Your task to perform on an android device: toggle javascript in the chrome app Image 0: 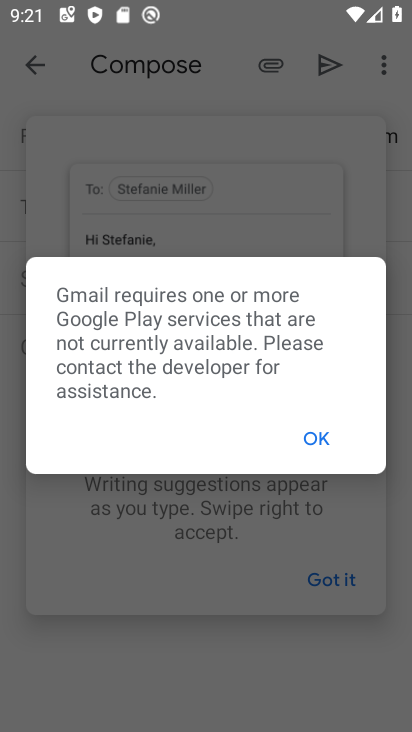
Step 0: press home button
Your task to perform on an android device: toggle javascript in the chrome app Image 1: 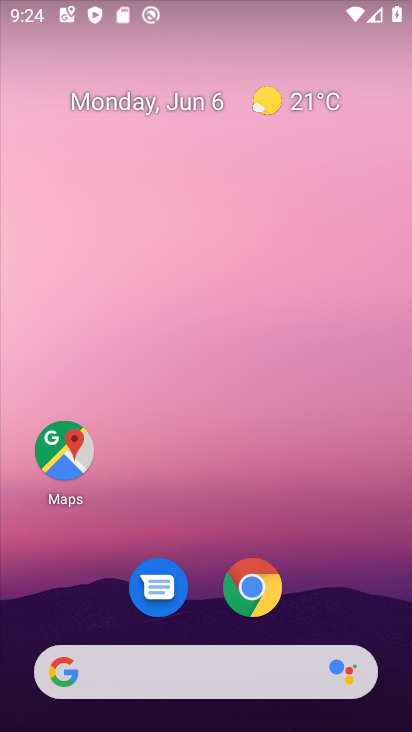
Step 1: click (271, 593)
Your task to perform on an android device: toggle javascript in the chrome app Image 2: 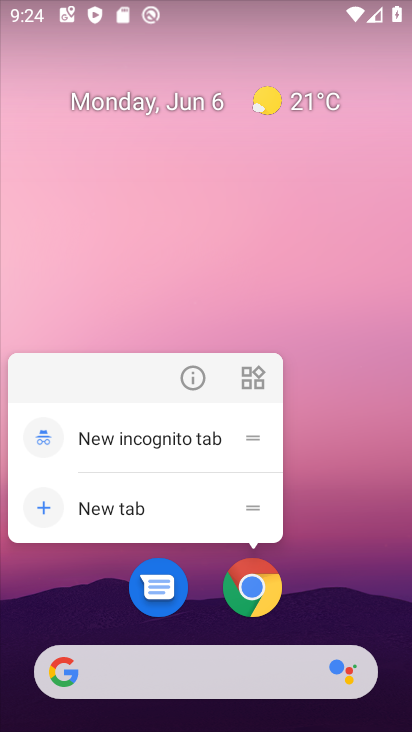
Step 2: click (252, 566)
Your task to perform on an android device: toggle javascript in the chrome app Image 3: 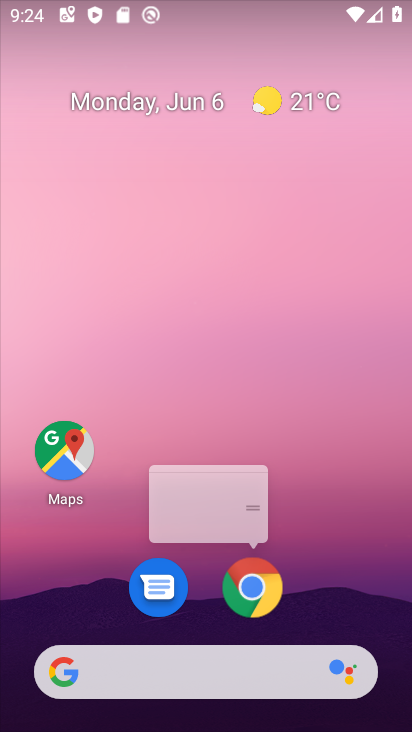
Step 3: click (252, 566)
Your task to perform on an android device: toggle javascript in the chrome app Image 4: 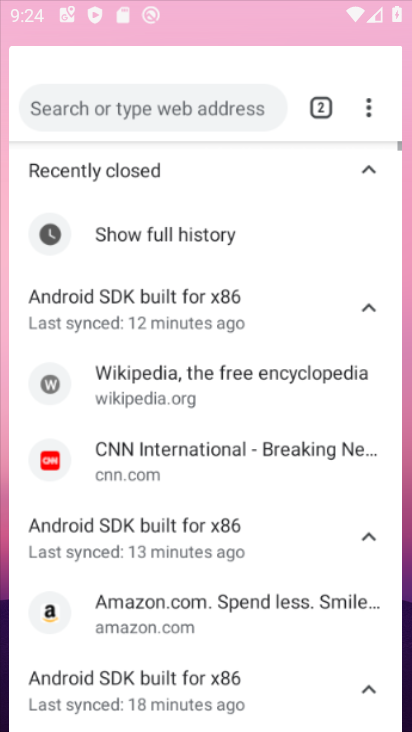
Step 4: click (252, 566)
Your task to perform on an android device: toggle javascript in the chrome app Image 5: 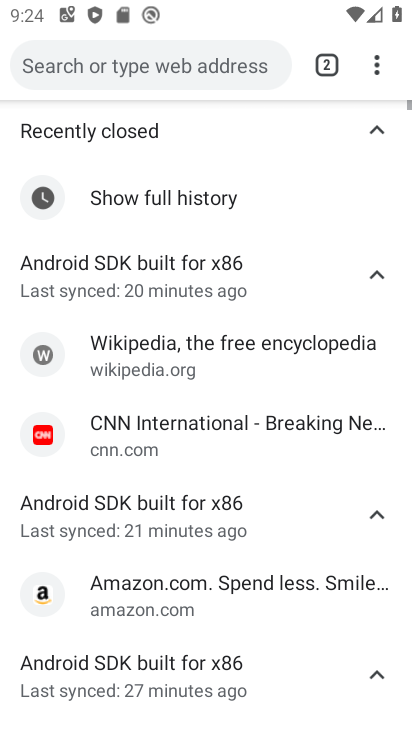
Step 5: click (373, 62)
Your task to perform on an android device: toggle javascript in the chrome app Image 6: 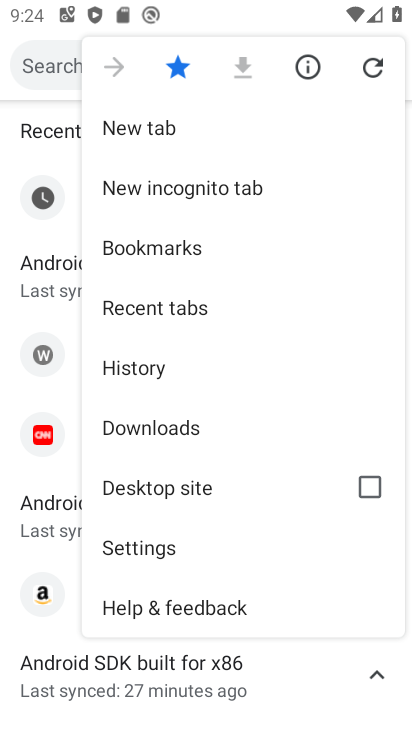
Step 6: click (146, 558)
Your task to perform on an android device: toggle javascript in the chrome app Image 7: 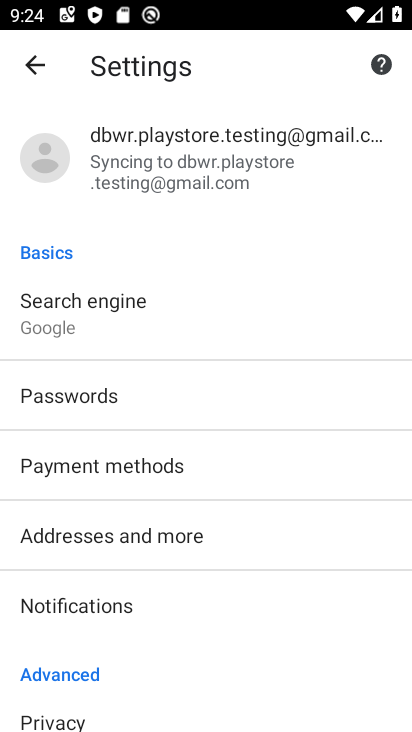
Step 7: drag from (164, 584) to (107, 179)
Your task to perform on an android device: toggle javascript in the chrome app Image 8: 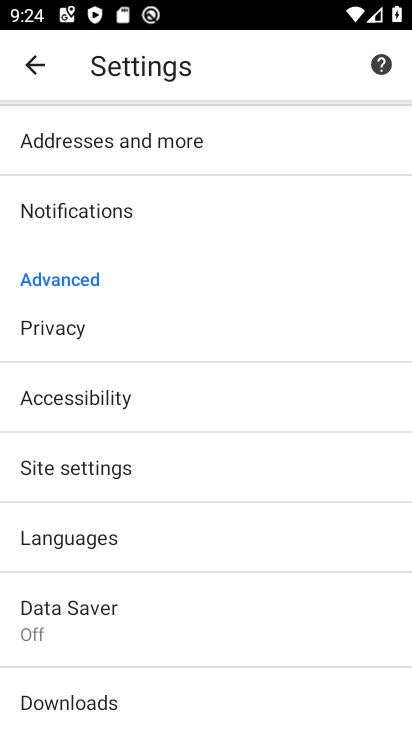
Step 8: click (137, 490)
Your task to perform on an android device: toggle javascript in the chrome app Image 9: 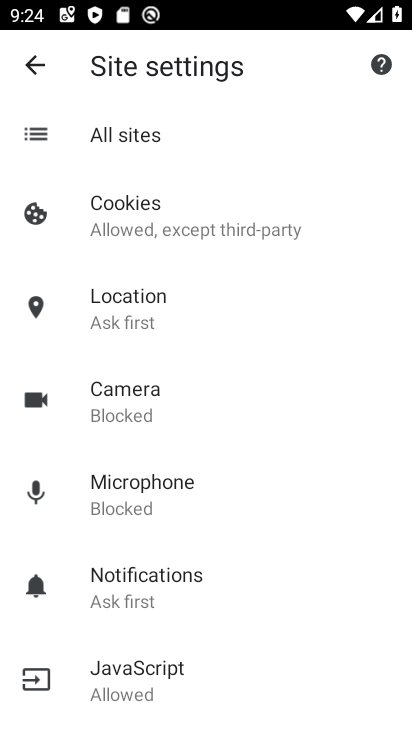
Step 9: click (167, 715)
Your task to perform on an android device: toggle javascript in the chrome app Image 10: 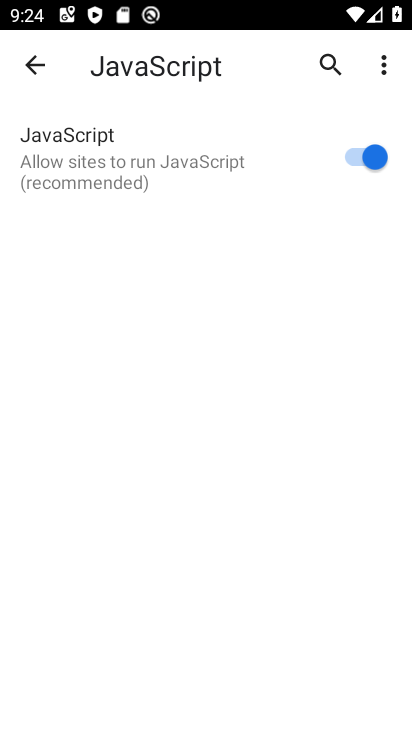
Step 10: click (360, 165)
Your task to perform on an android device: toggle javascript in the chrome app Image 11: 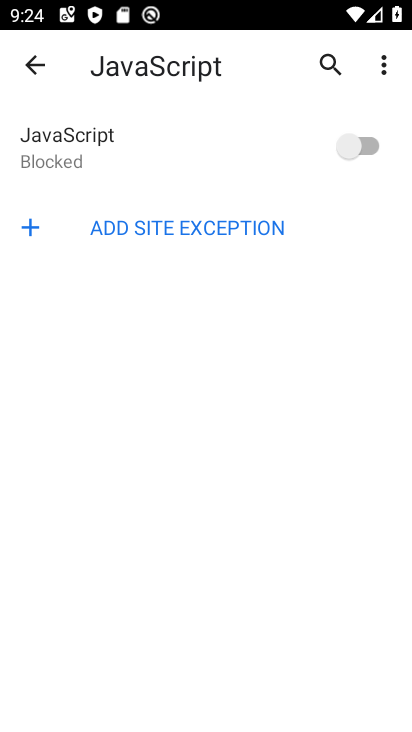
Step 11: task complete